Your task to perform on an android device: Show me recent news Image 0: 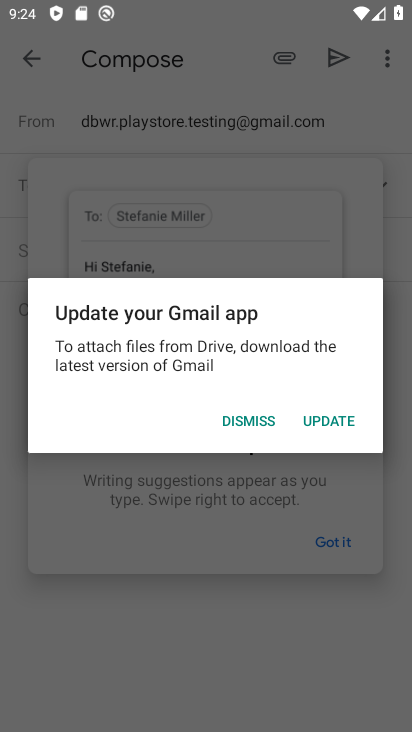
Step 0: click (336, 544)
Your task to perform on an android device: Show me recent news Image 1: 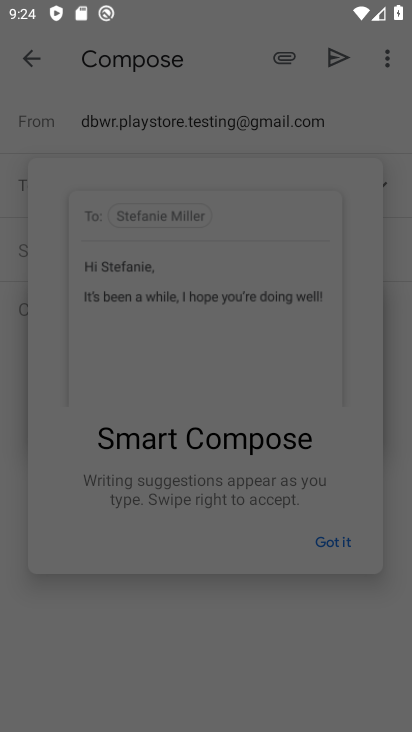
Step 1: press back button
Your task to perform on an android device: Show me recent news Image 2: 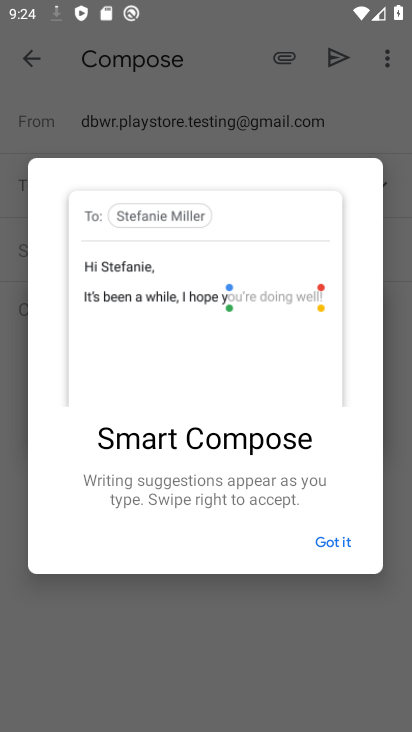
Step 2: press home button
Your task to perform on an android device: Show me recent news Image 3: 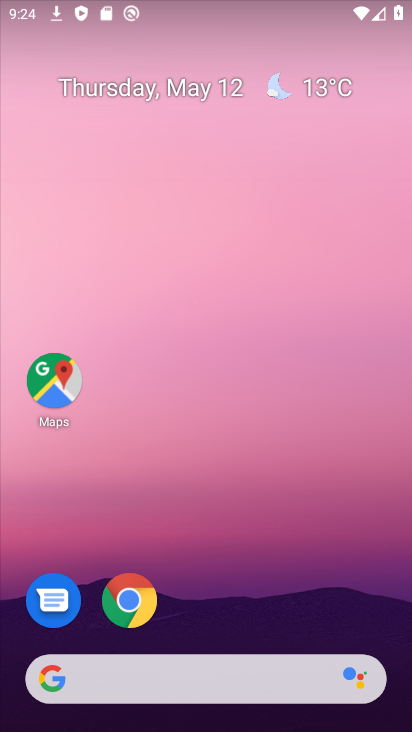
Step 3: click (160, 671)
Your task to perform on an android device: Show me recent news Image 4: 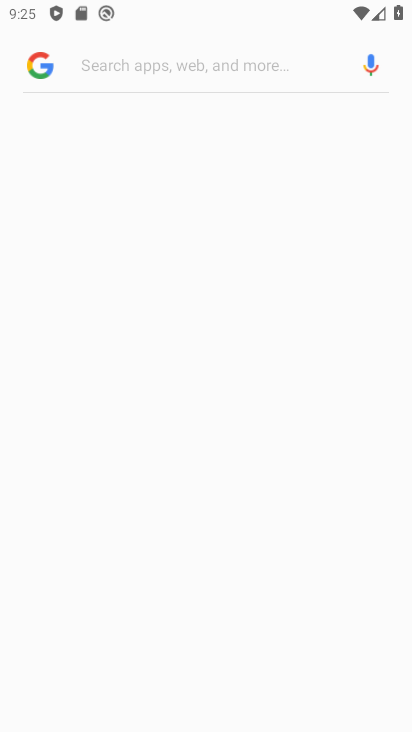
Step 4: click (134, 75)
Your task to perform on an android device: Show me recent news Image 5: 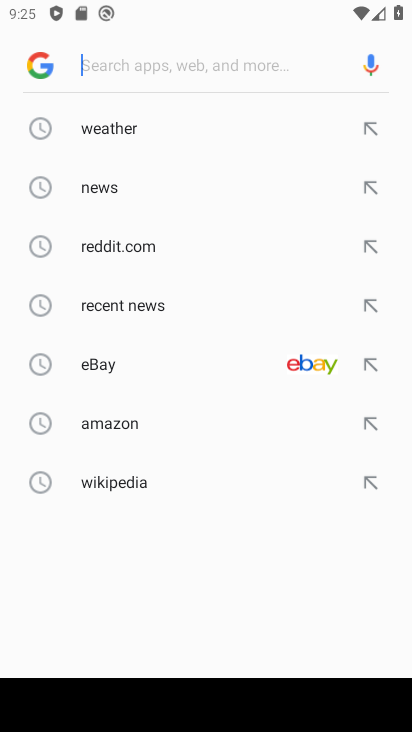
Step 5: click (112, 188)
Your task to perform on an android device: Show me recent news Image 6: 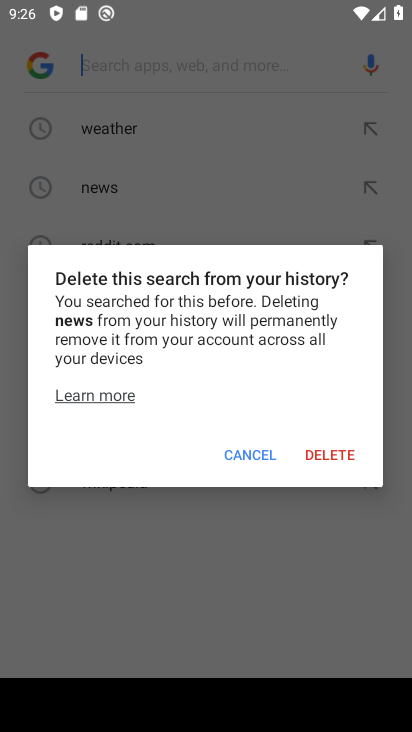
Step 6: click (254, 446)
Your task to perform on an android device: Show me recent news Image 7: 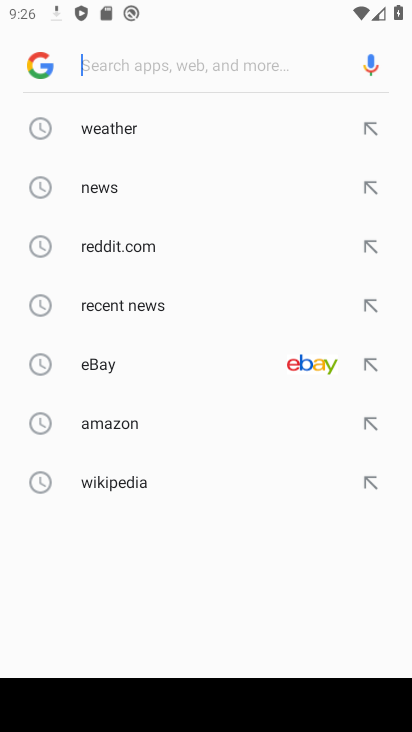
Step 7: click (105, 192)
Your task to perform on an android device: Show me recent news Image 8: 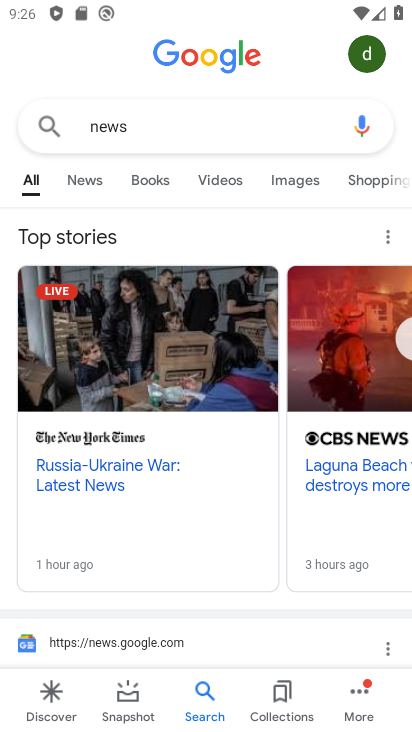
Step 8: task complete